Your task to perform on an android device: move an email to a new category in the gmail app Image 0: 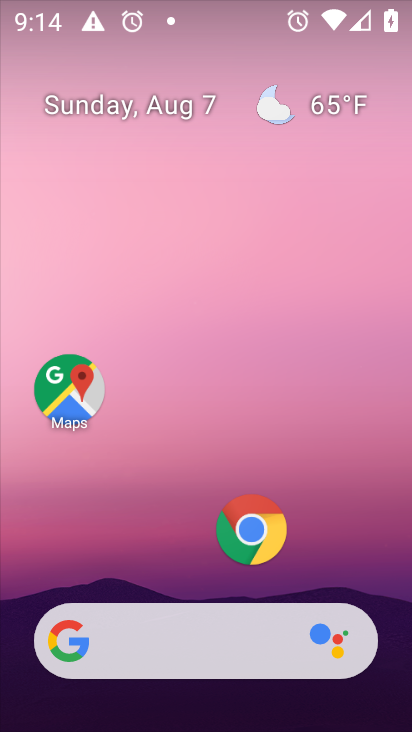
Step 0: drag from (147, 494) to (282, 0)
Your task to perform on an android device: move an email to a new category in the gmail app Image 1: 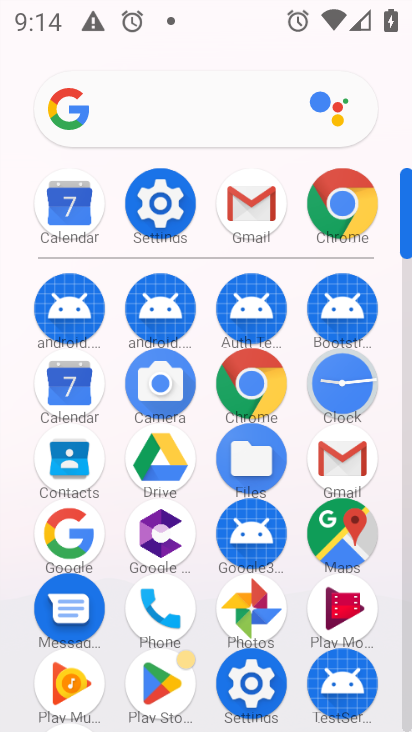
Step 1: click (342, 469)
Your task to perform on an android device: move an email to a new category in the gmail app Image 2: 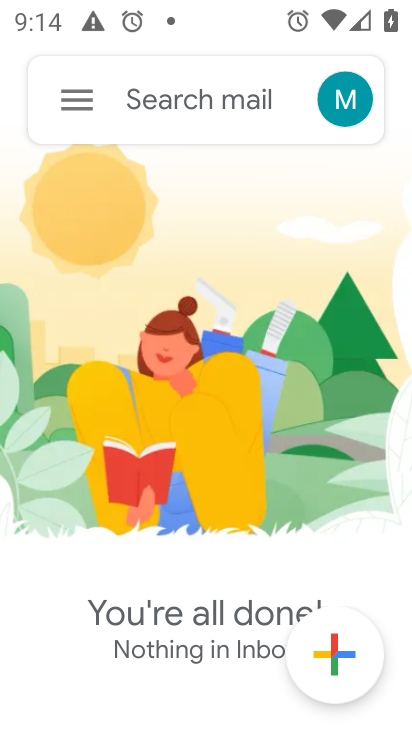
Step 2: task complete